Your task to perform on an android device: Check the weather Image 0: 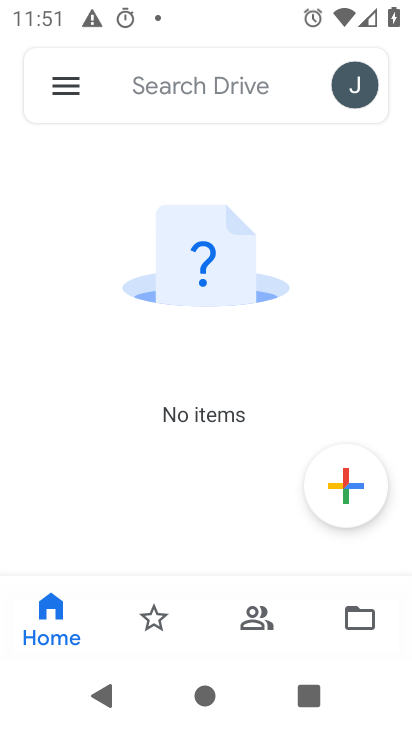
Step 0: press back button
Your task to perform on an android device: Check the weather Image 1: 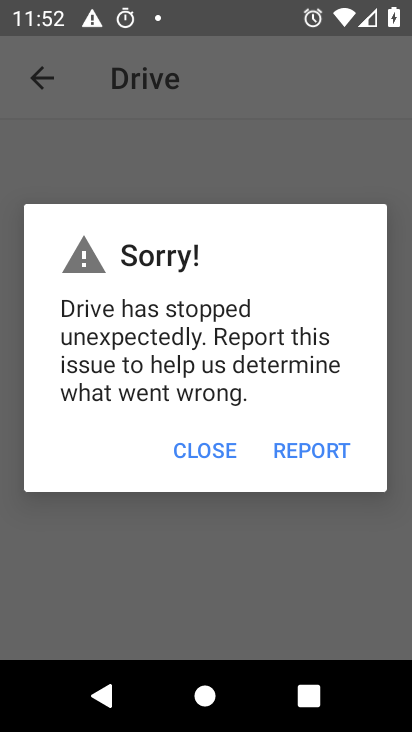
Step 1: press home button
Your task to perform on an android device: Check the weather Image 2: 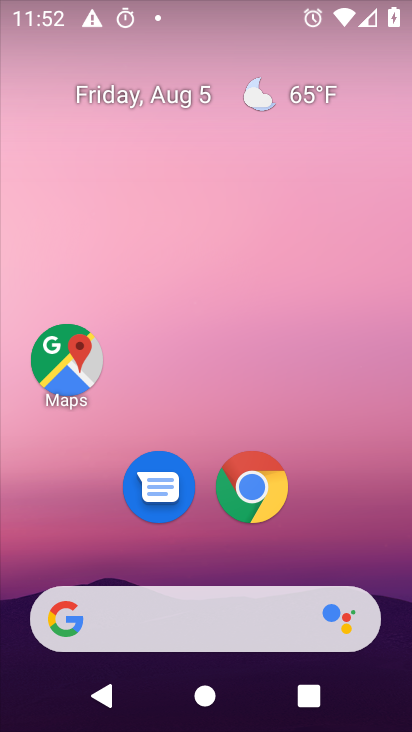
Step 2: click (214, 615)
Your task to perform on an android device: Check the weather Image 3: 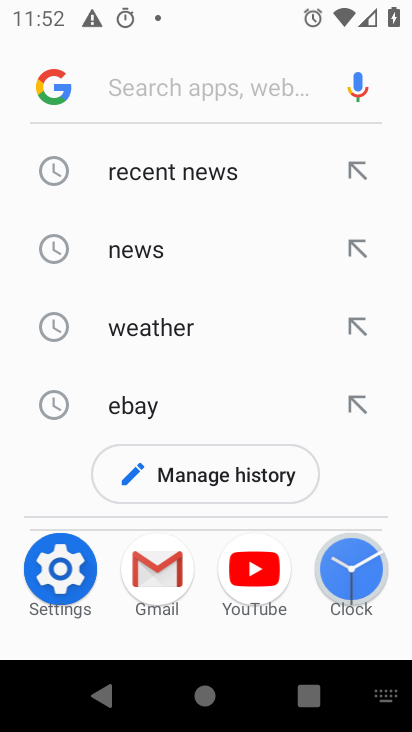
Step 3: click (134, 329)
Your task to perform on an android device: Check the weather Image 4: 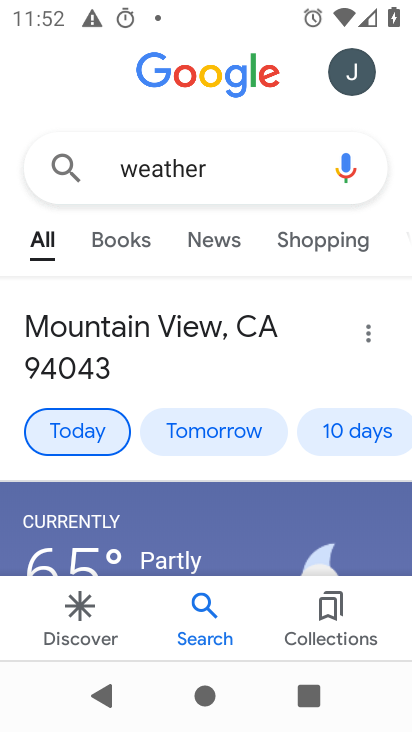
Step 4: task complete